Your task to perform on an android device: turn off sleep mode Image 0: 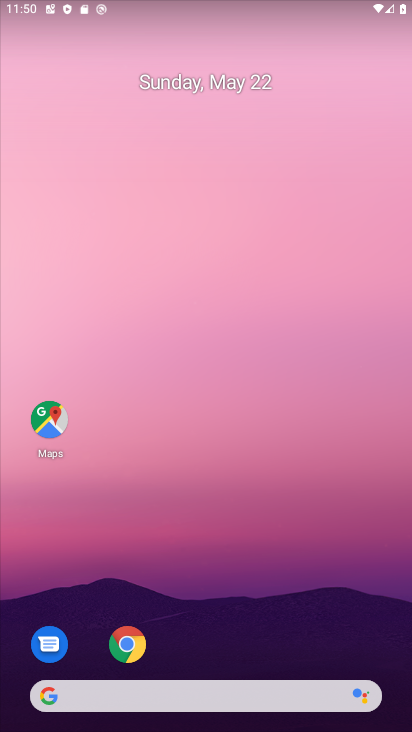
Step 0: drag from (334, 596) to (194, 75)
Your task to perform on an android device: turn off sleep mode Image 1: 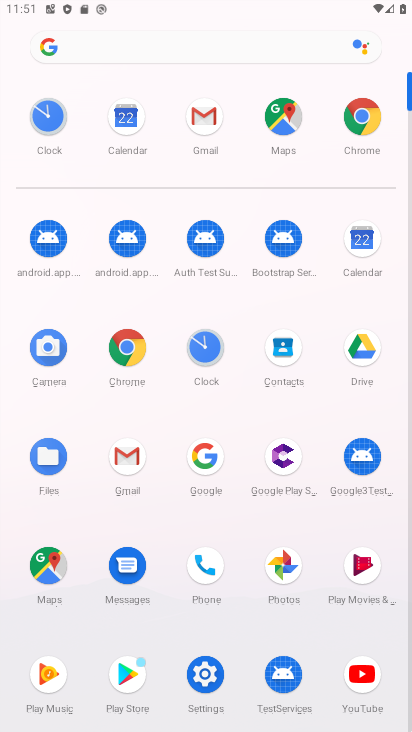
Step 1: click (207, 672)
Your task to perform on an android device: turn off sleep mode Image 2: 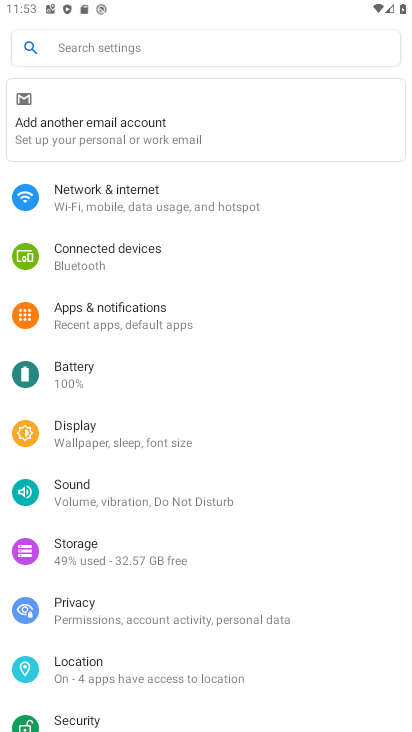
Step 2: task complete